Your task to perform on an android device: Open network settings Image 0: 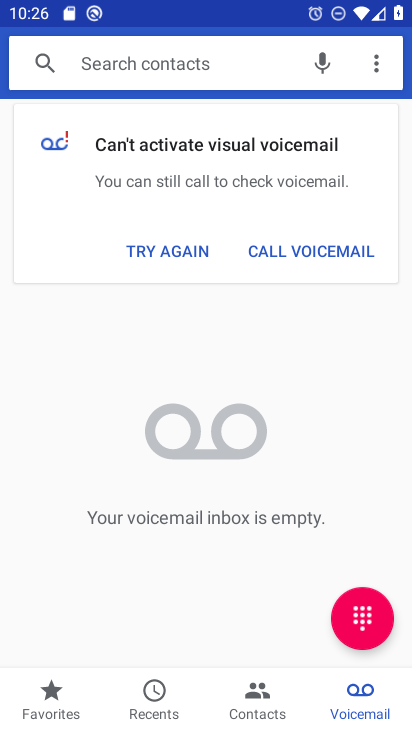
Step 0: press home button
Your task to perform on an android device: Open network settings Image 1: 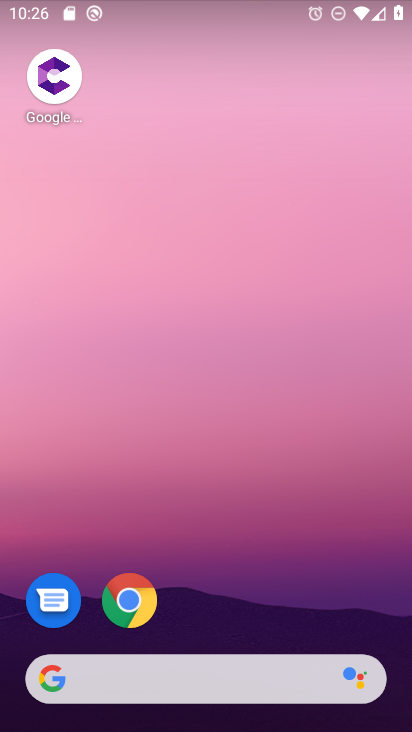
Step 1: drag from (402, 656) to (282, 62)
Your task to perform on an android device: Open network settings Image 2: 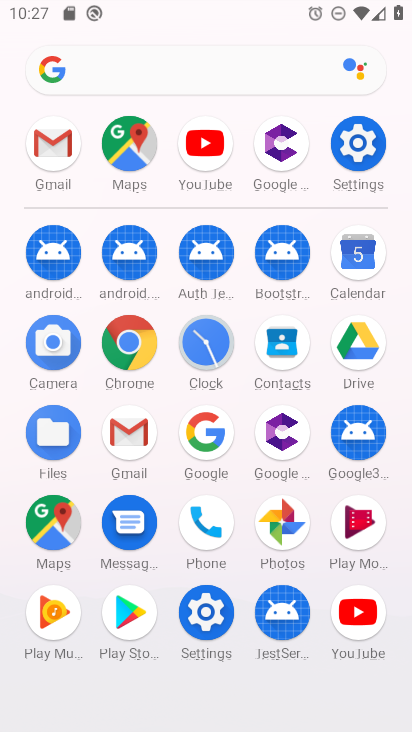
Step 2: click (197, 625)
Your task to perform on an android device: Open network settings Image 3: 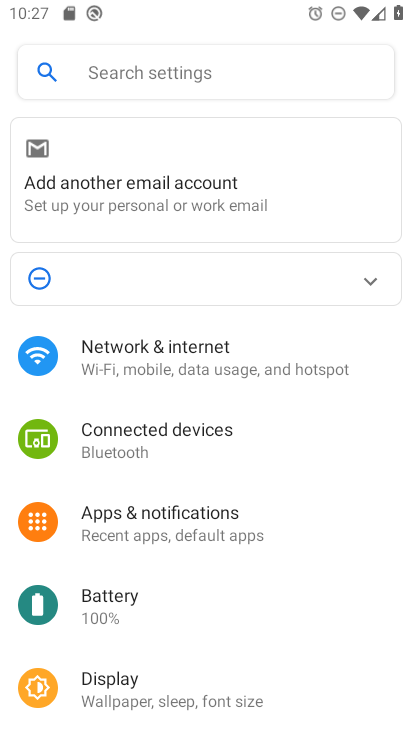
Step 3: click (141, 343)
Your task to perform on an android device: Open network settings Image 4: 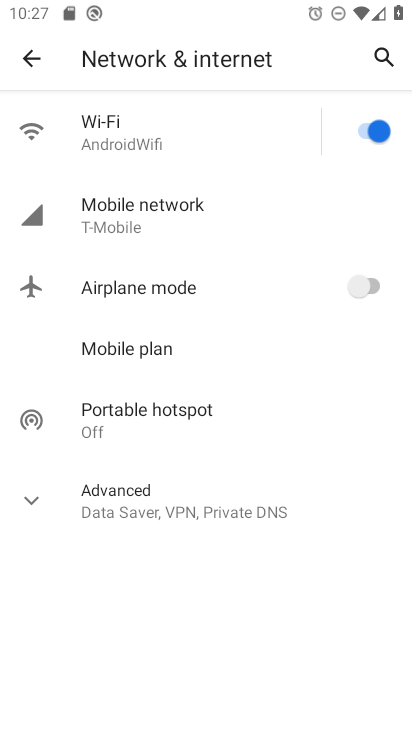
Step 4: task complete